Your task to perform on an android device: Open my contact list Image 0: 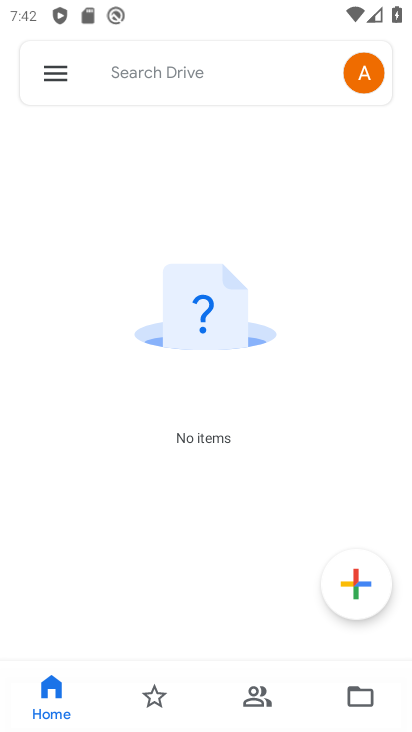
Step 0: press home button
Your task to perform on an android device: Open my contact list Image 1: 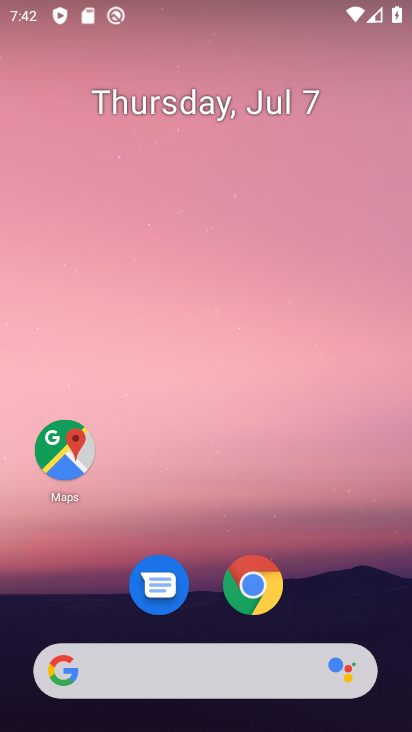
Step 1: drag from (324, 579) to (306, 51)
Your task to perform on an android device: Open my contact list Image 2: 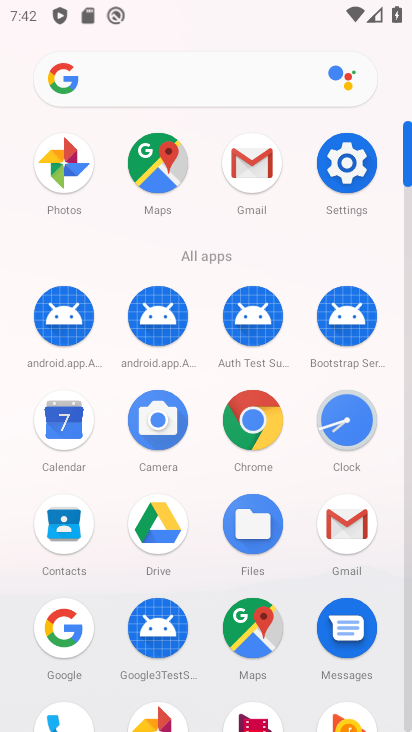
Step 2: click (60, 526)
Your task to perform on an android device: Open my contact list Image 3: 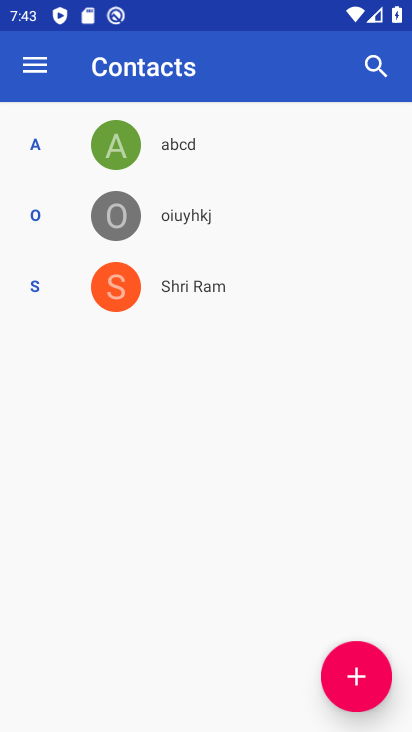
Step 3: task complete